Your task to perform on an android device: Open accessibility settings Image 0: 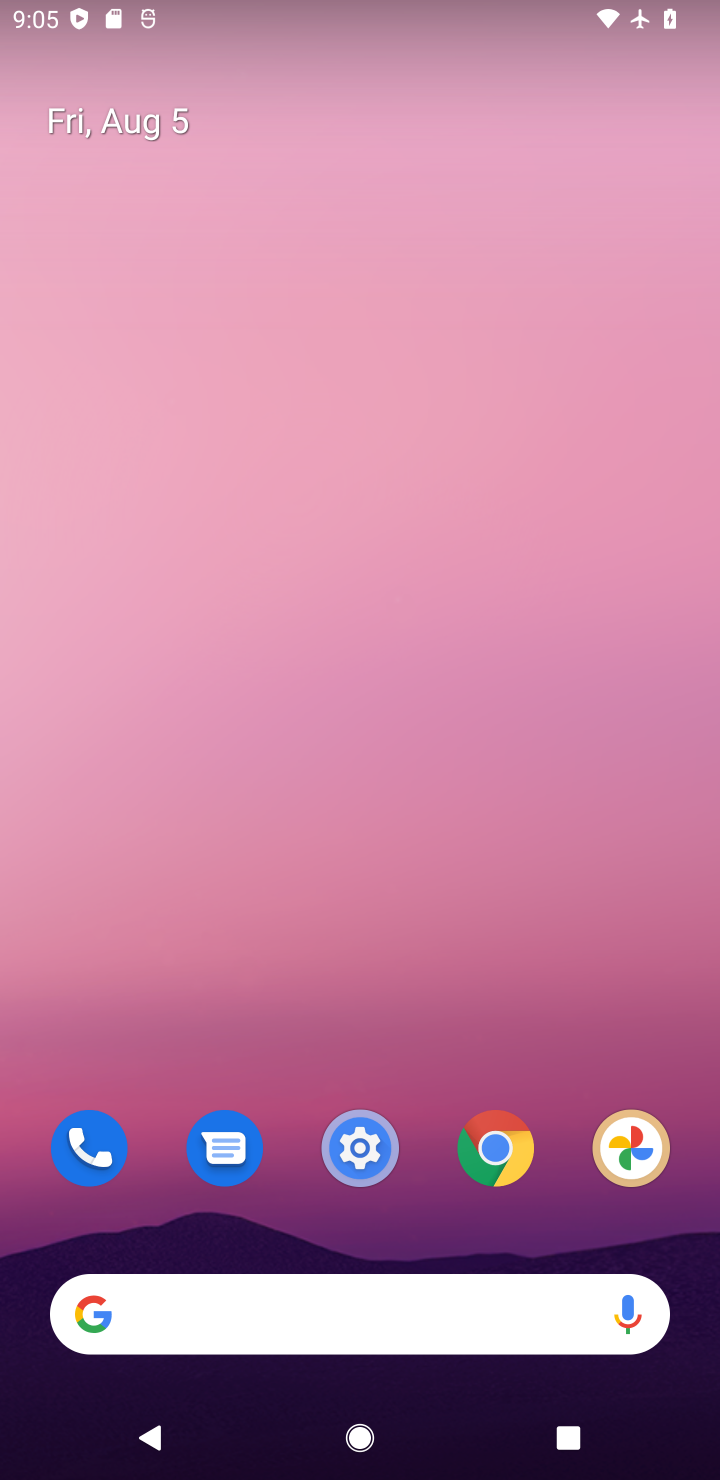
Step 0: click (325, 1150)
Your task to perform on an android device: Open accessibility settings Image 1: 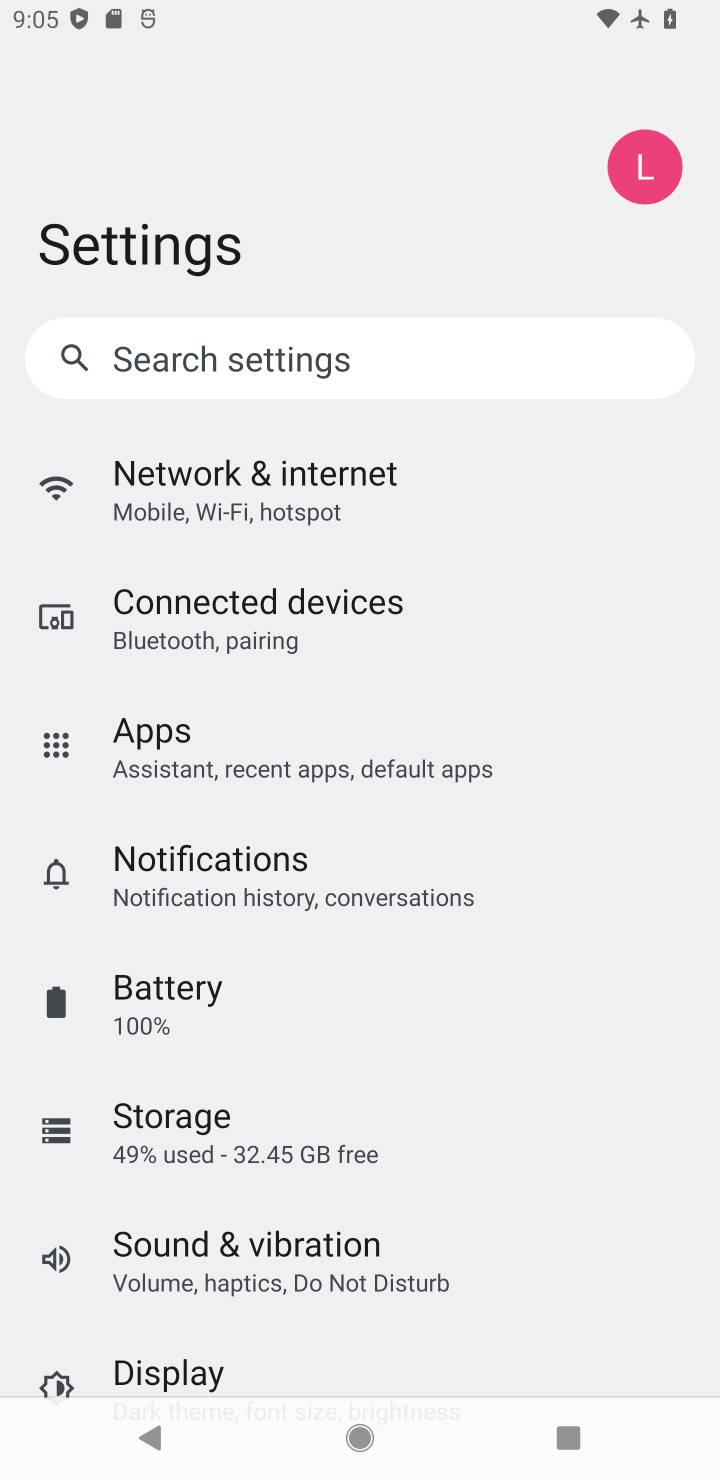
Step 1: drag from (471, 1241) to (402, 571)
Your task to perform on an android device: Open accessibility settings Image 2: 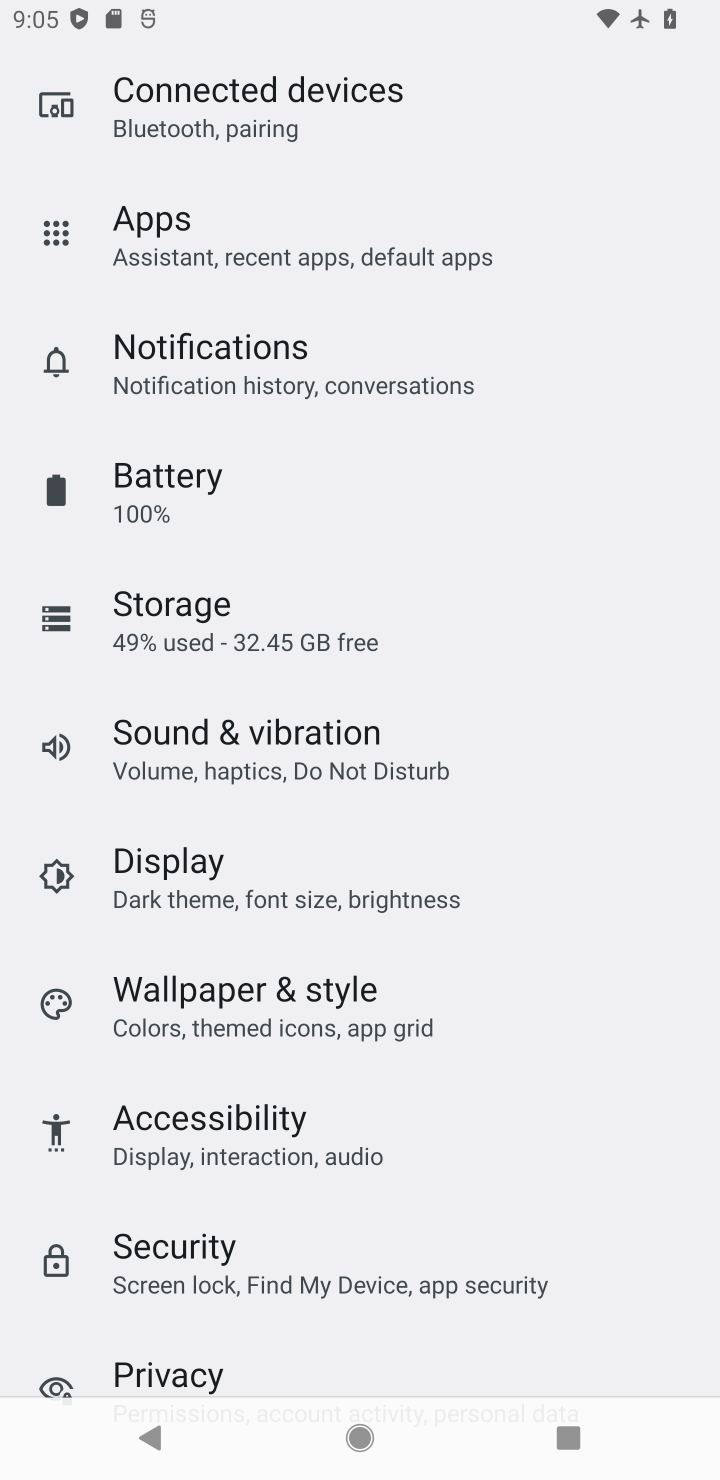
Step 2: drag from (343, 1342) to (329, 1005)
Your task to perform on an android device: Open accessibility settings Image 3: 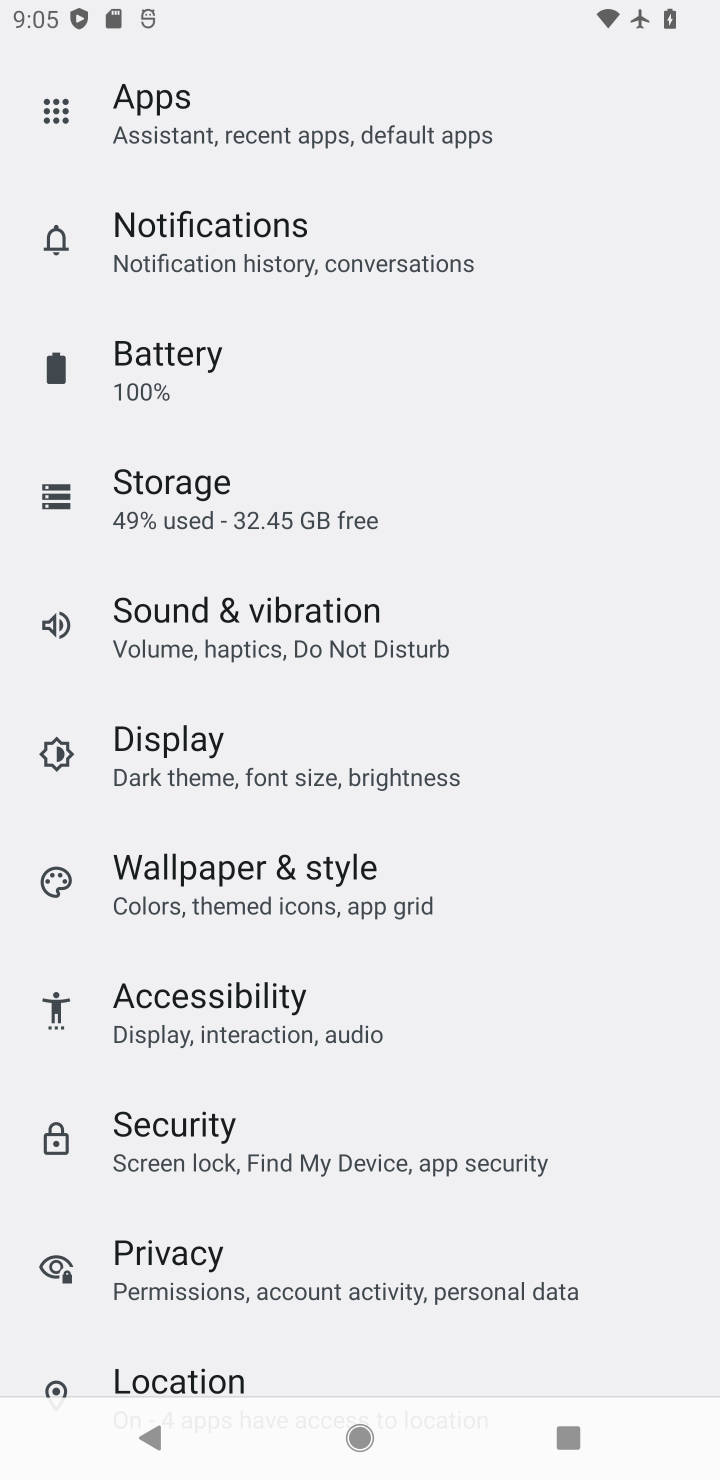
Step 3: click (329, 1007)
Your task to perform on an android device: Open accessibility settings Image 4: 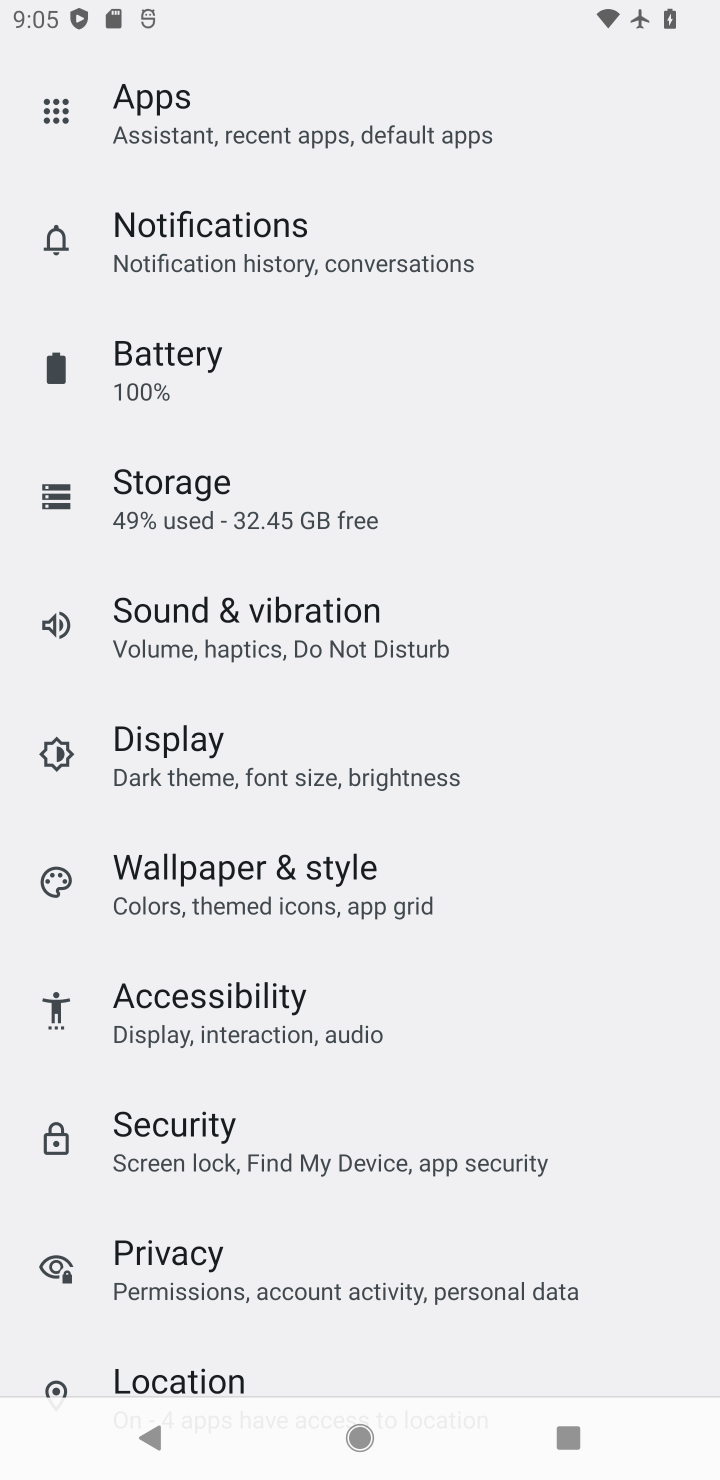
Step 4: task complete